Your task to perform on an android device: Show me the alarms in the clock app Image 0: 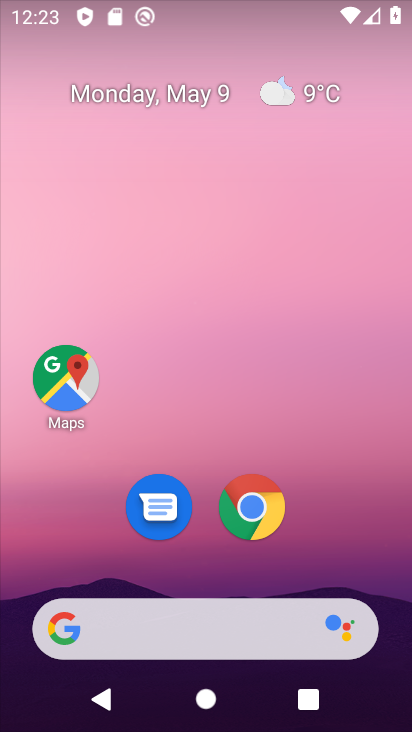
Step 0: drag from (175, 728) to (179, 211)
Your task to perform on an android device: Show me the alarms in the clock app Image 1: 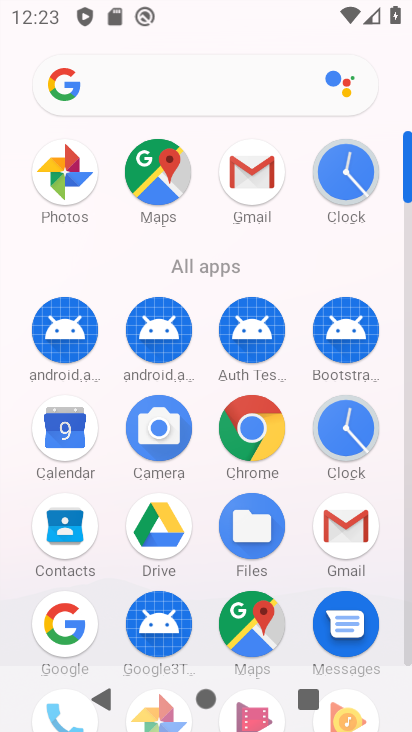
Step 1: click (341, 425)
Your task to perform on an android device: Show me the alarms in the clock app Image 2: 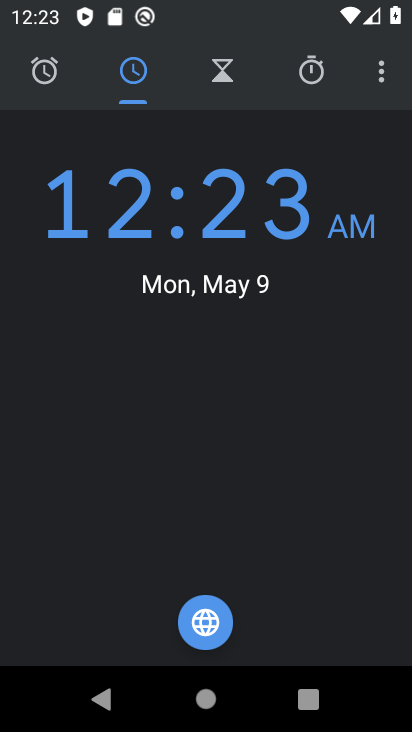
Step 2: click (47, 75)
Your task to perform on an android device: Show me the alarms in the clock app Image 3: 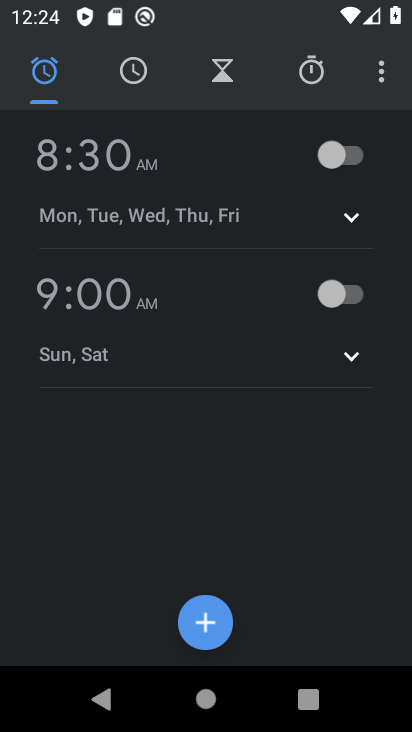
Step 3: task complete